Your task to perform on an android device: delete a single message in the gmail app Image 0: 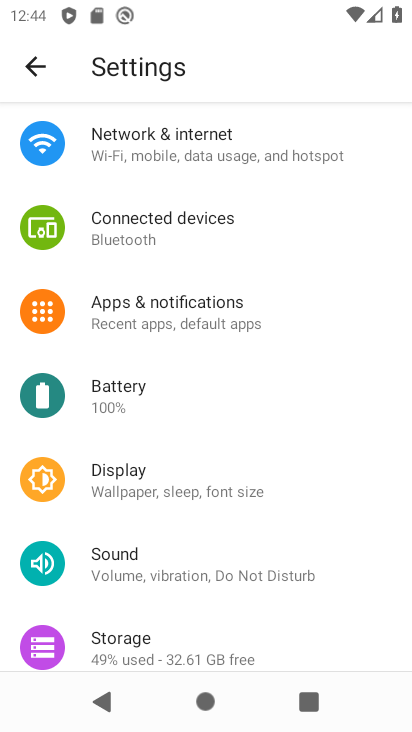
Step 0: press home button
Your task to perform on an android device: delete a single message in the gmail app Image 1: 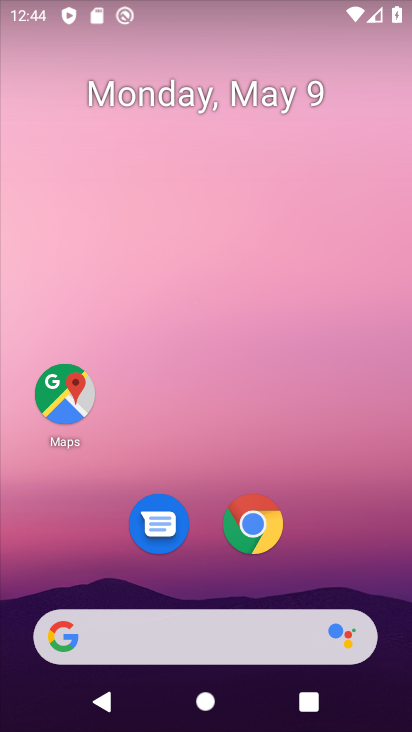
Step 1: drag from (297, 563) to (340, 104)
Your task to perform on an android device: delete a single message in the gmail app Image 2: 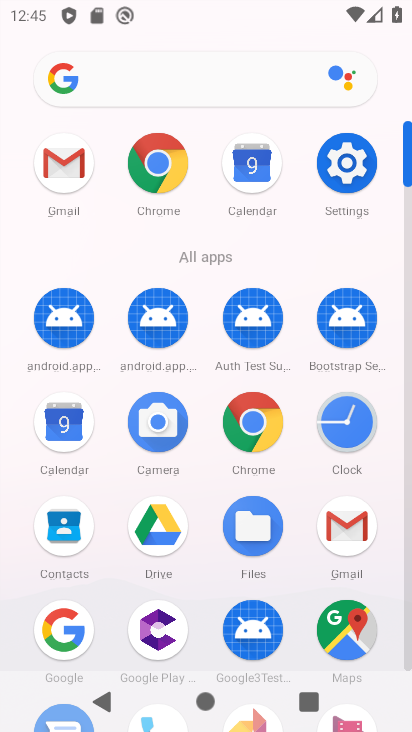
Step 2: click (78, 174)
Your task to perform on an android device: delete a single message in the gmail app Image 3: 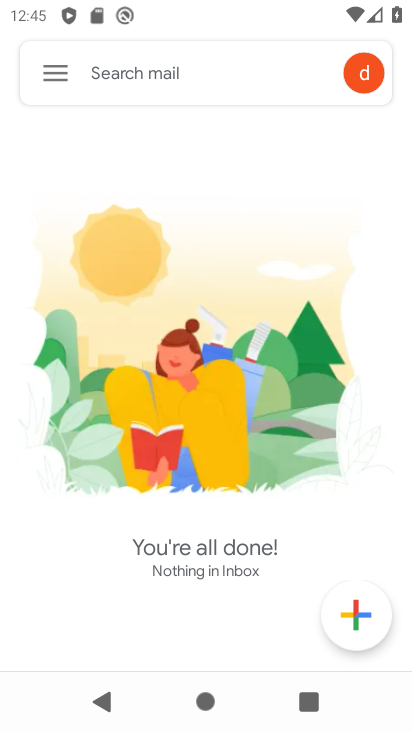
Step 3: click (55, 72)
Your task to perform on an android device: delete a single message in the gmail app Image 4: 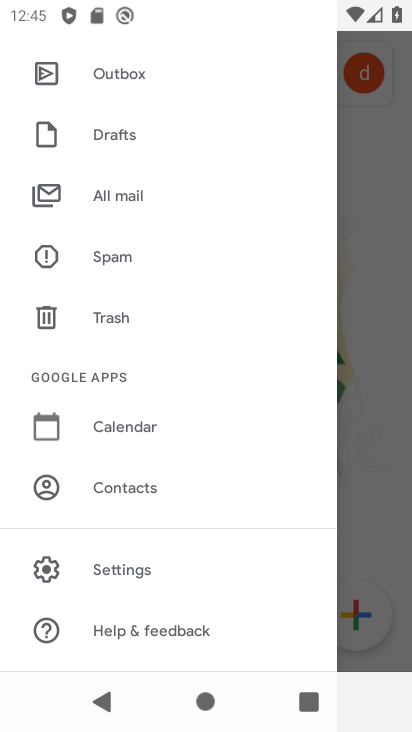
Step 4: click (164, 183)
Your task to perform on an android device: delete a single message in the gmail app Image 5: 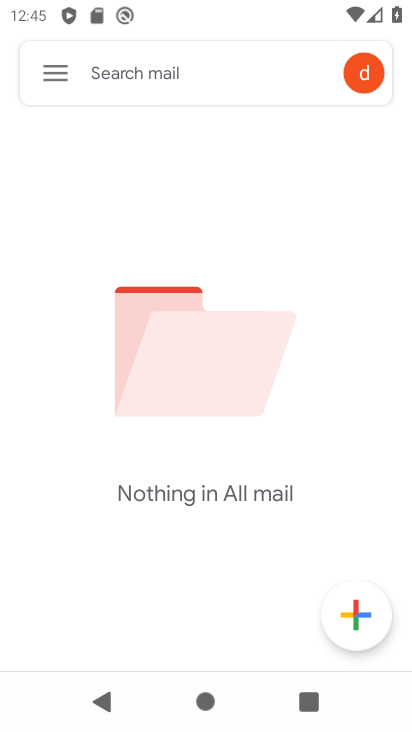
Step 5: task complete